Your task to perform on an android device: View the shopping cart on amazon. Search for "logitech g903" on amazon, select the first entry, add it to the cart, then select checkout. Image 0: 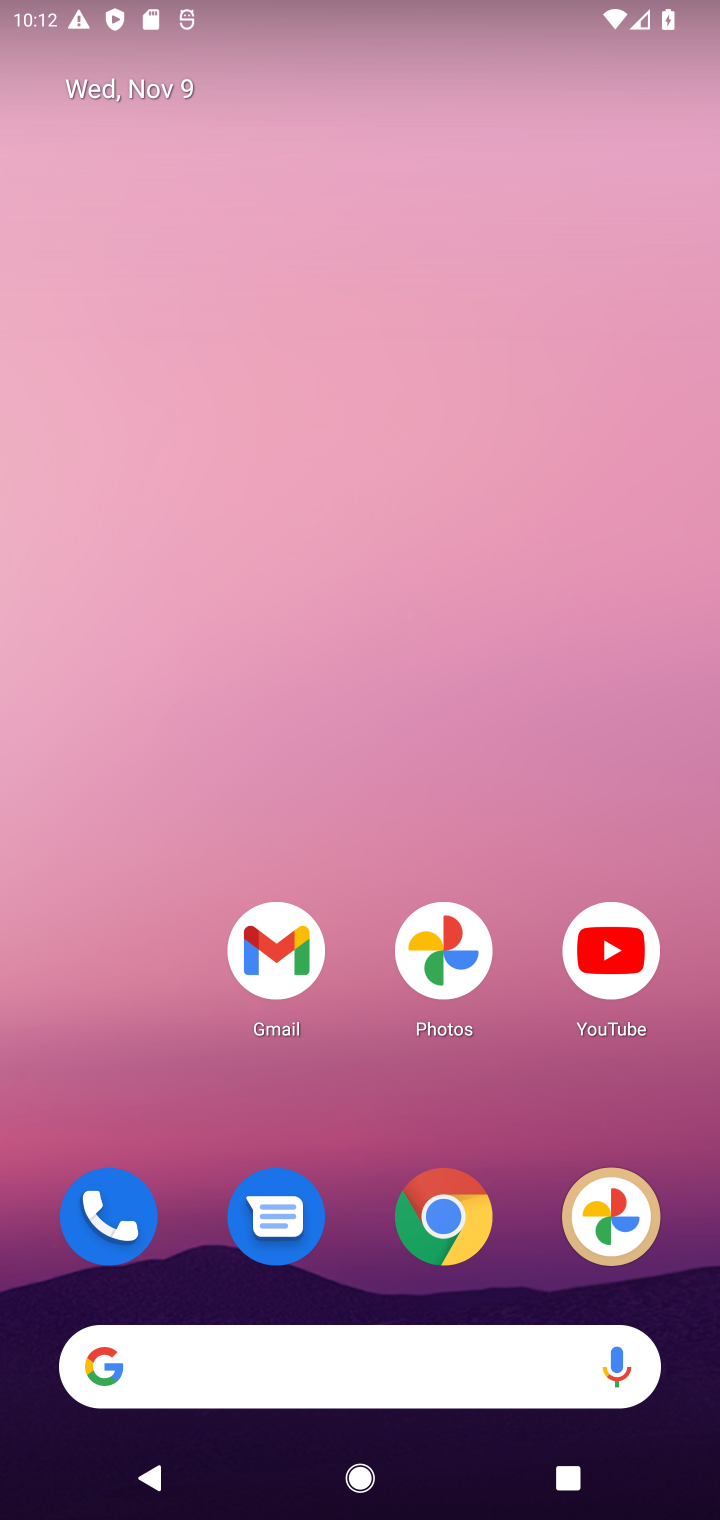
Step 0: drag from (359, 658) to (326, 15)
Your task to perform on an android device: View the shopping cart on amazon. Search for "logitech g903" on amazon, select the first entry, add it to the cart, then select checkout. Image 1: 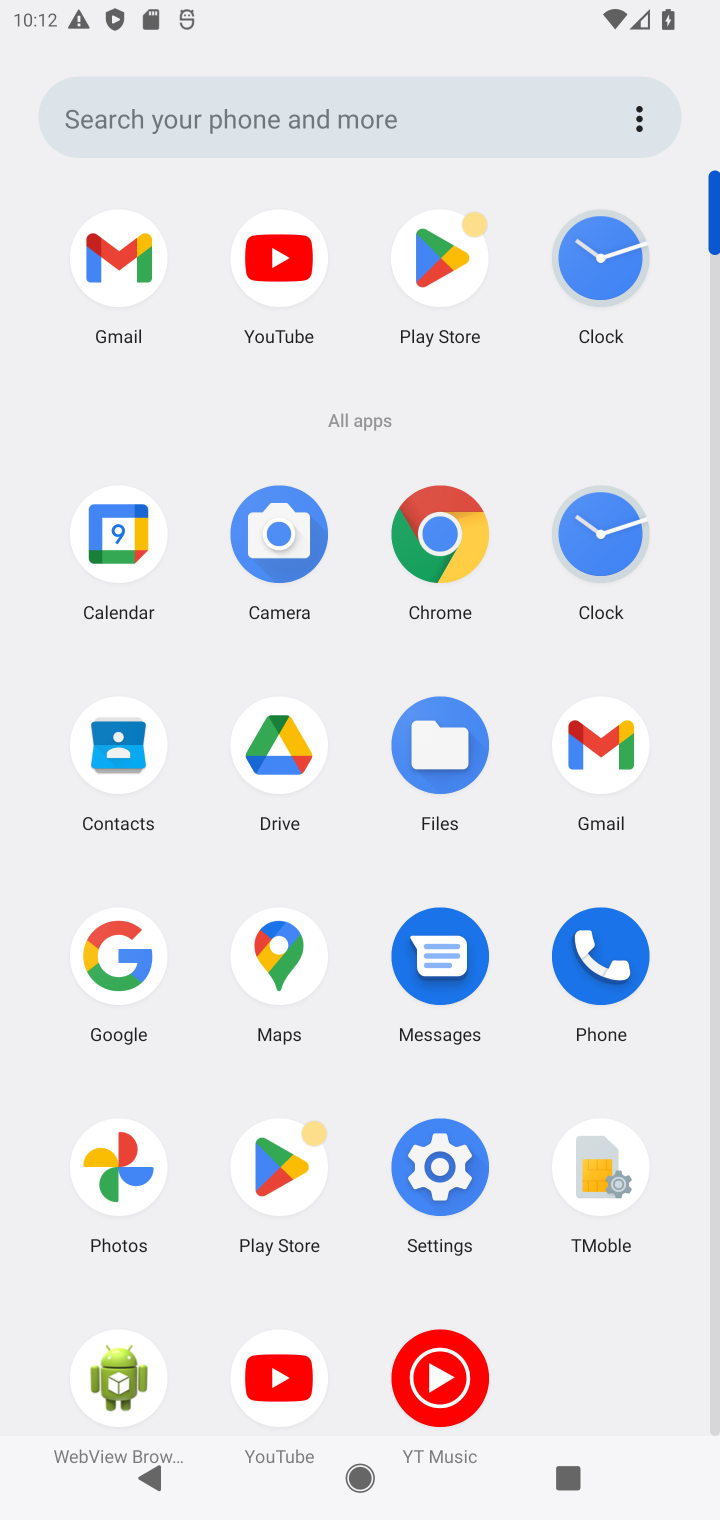
Step 1: click (432, 534)
Your task to perform on an android device: View the shopping cart on amazon. Search for "logitech g903" on amazon, select the first entry, add it to the cart, then select checkout. Image 2: 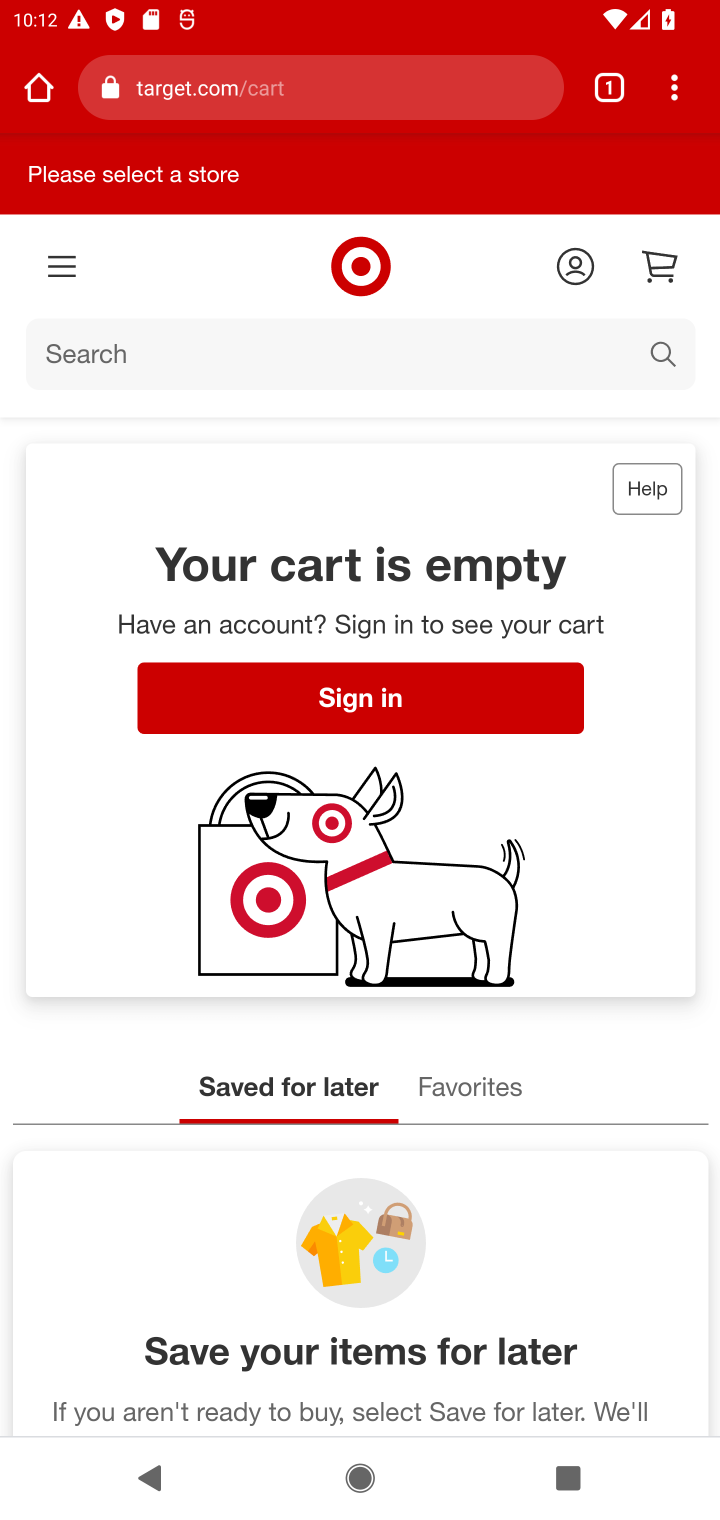
Step 2: click (337, 116)
Your task to perform on an android device: View the shopping cart on amazon. Search for "logitech g903" on amazon, select the first entry, add it to the cart, then select checkout. Image 3: 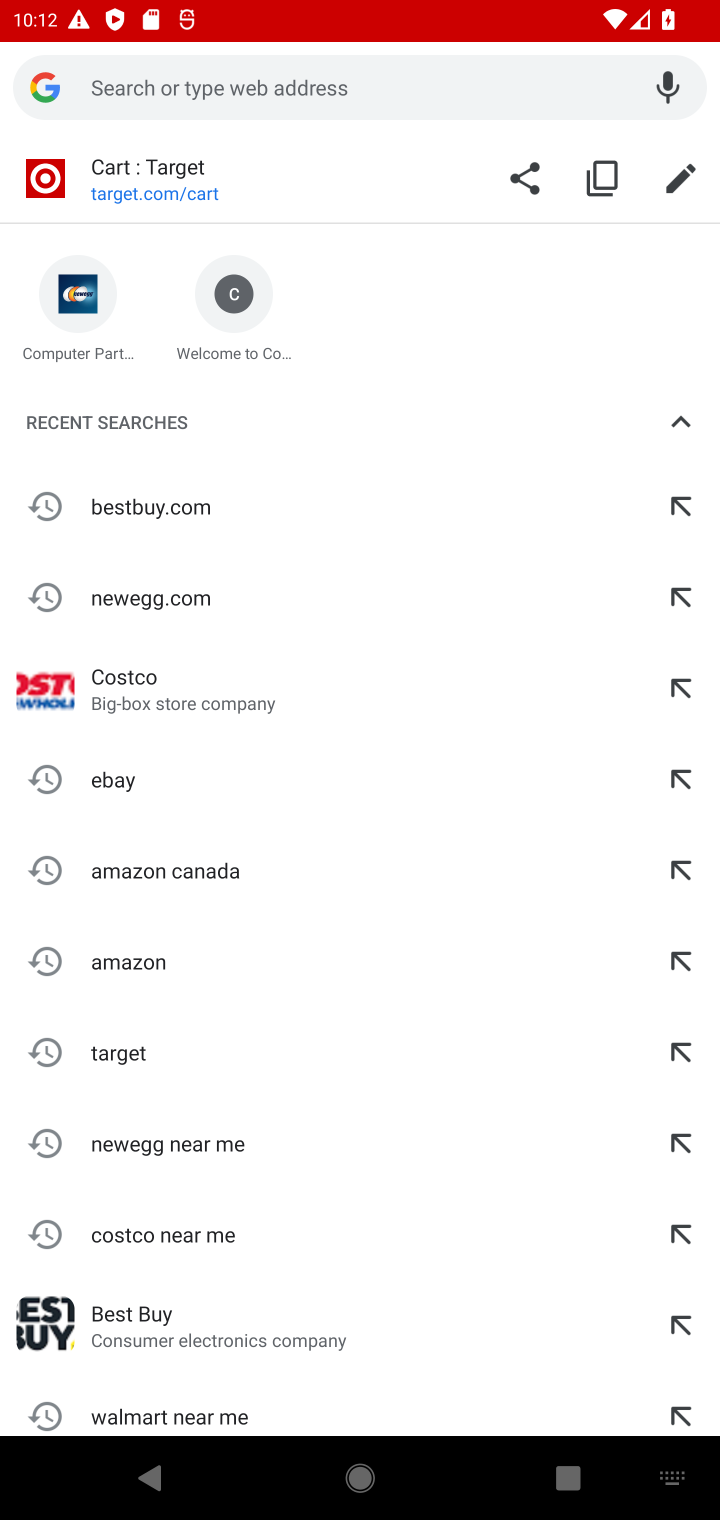
Step 3: type "amazon.com"
Your task to perform on an android device: View the shopping cart on amazon. Search for "logitech g903" on amazon, select the first entry, add it to the cart, then select checkout. Image 4: 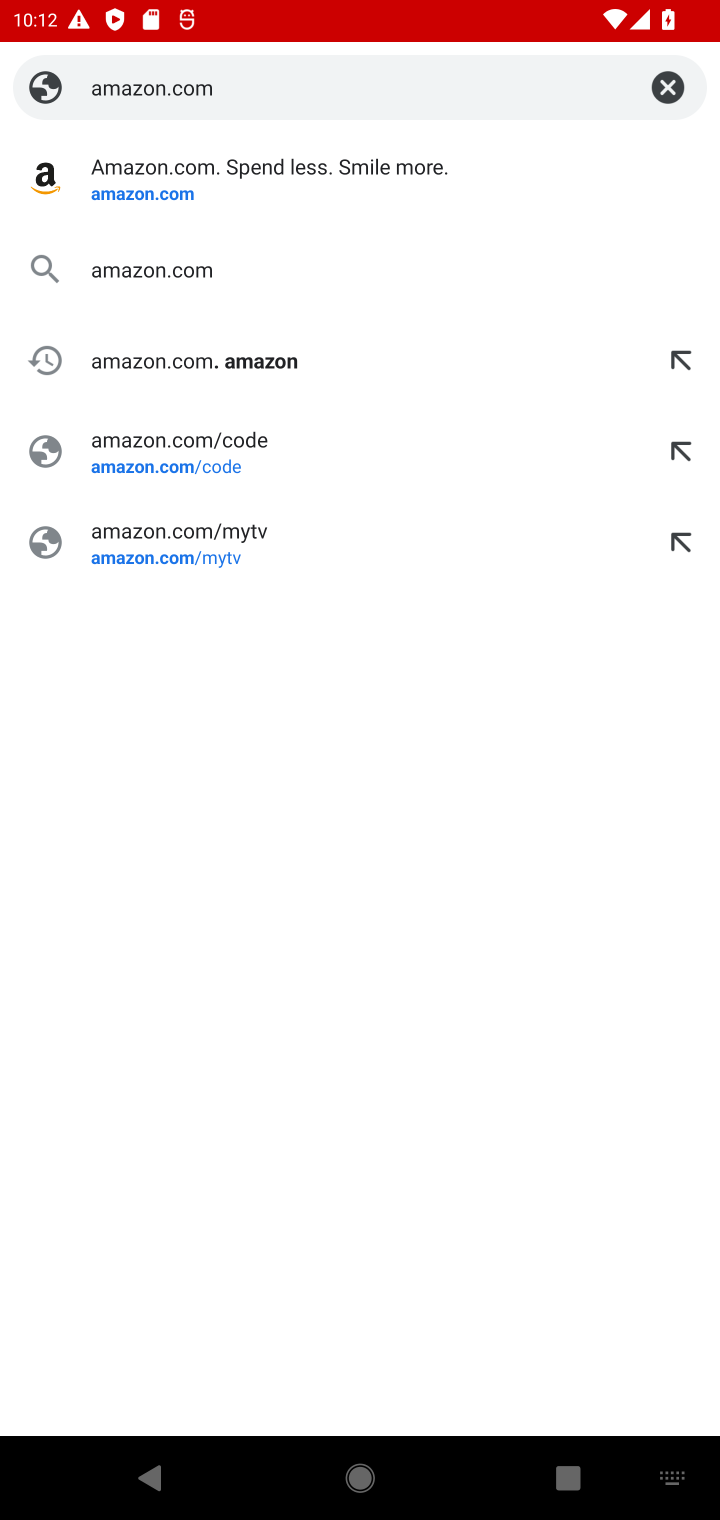
Step 4: press enter
Your task to perform on an android device: View the shopping cart on amazon. Search for "logitech g903" on amazon, select the first entry, add it to the cart, then select checkout. Image 5: 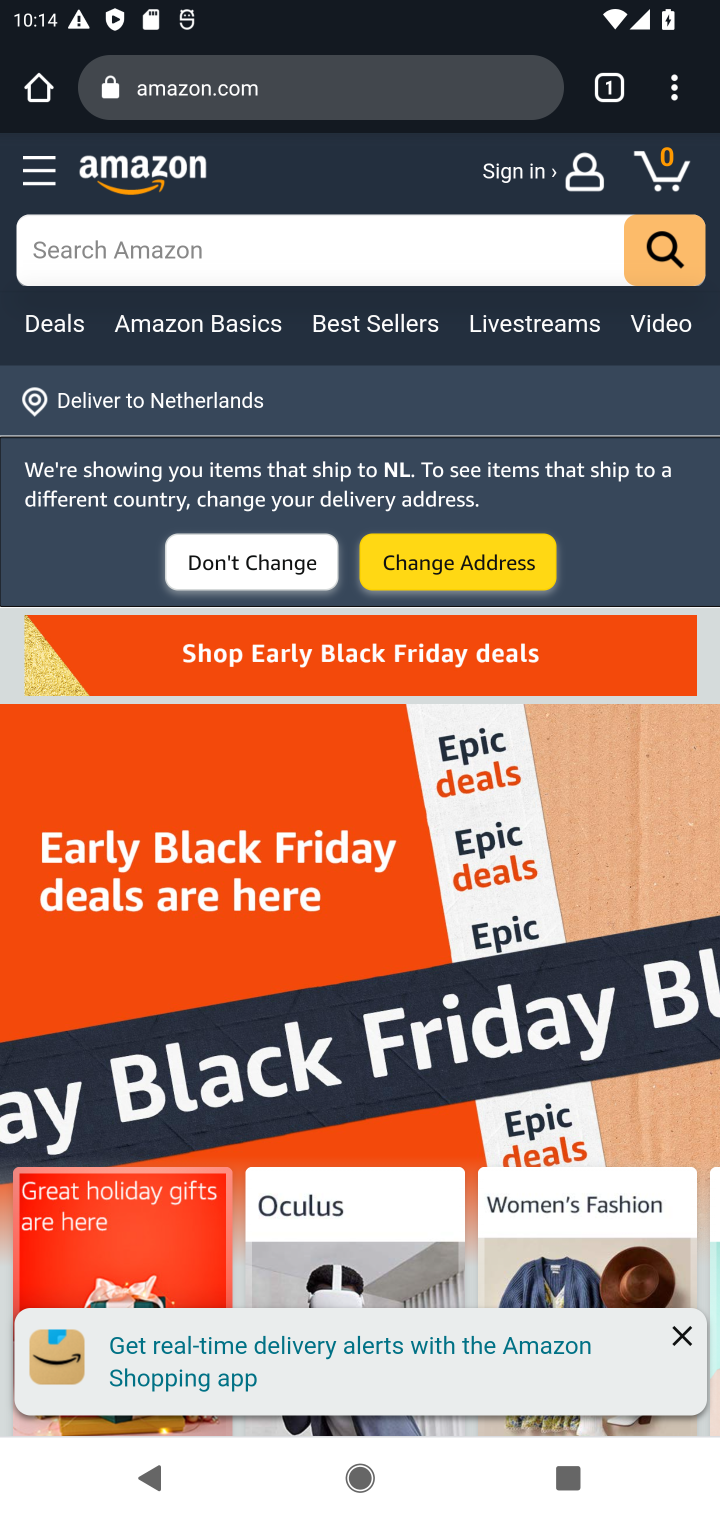
Step 5: click (445, 239)
Your task to perform on an android device: View the shopping cart on amazon. Search for "logitech g903" on amazon, select the first entry, add it to the cart, then select checkout. Image 6: 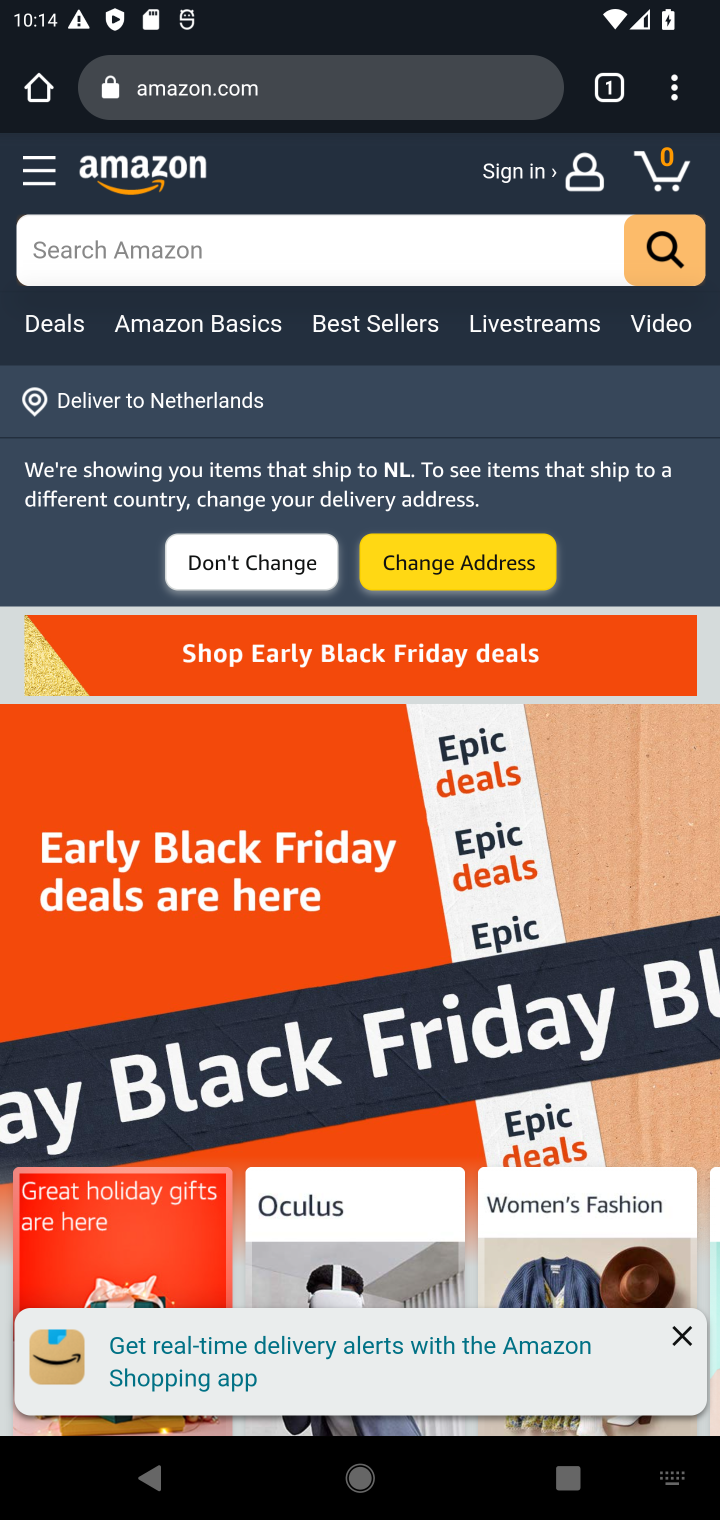
Step 6: click (678, 179)
Your task to perform on an android device: View the shopping cart on amazon. Search for "logitech g903" on amazon, select the first entry, add it to the cart, then select checkout. Image 7: 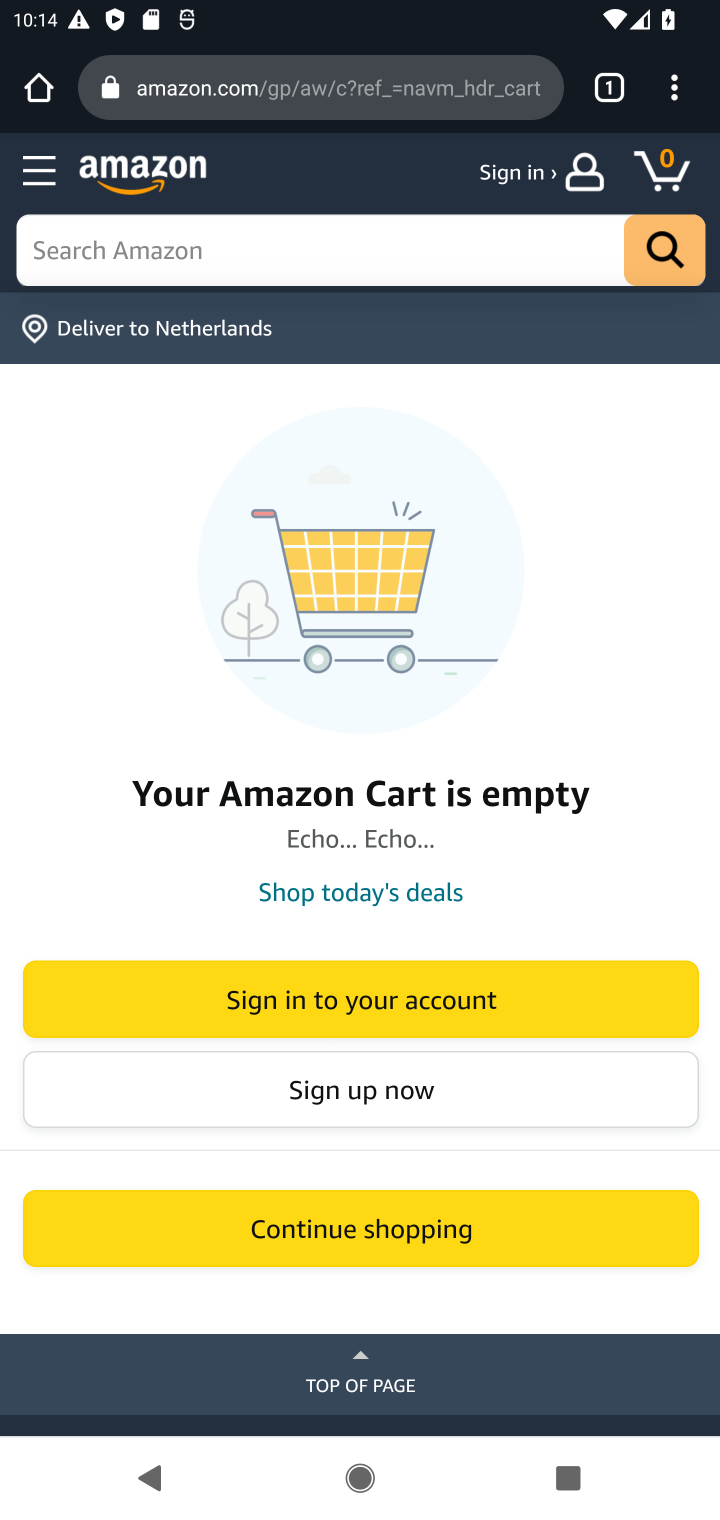
Step 7: click (317, 236)
Your task to perform on an android device: View the shopping cart on amazon. Search for "logitech g903" on amazon, select the first entry, add it to the cart, then select checkout. Image 8: 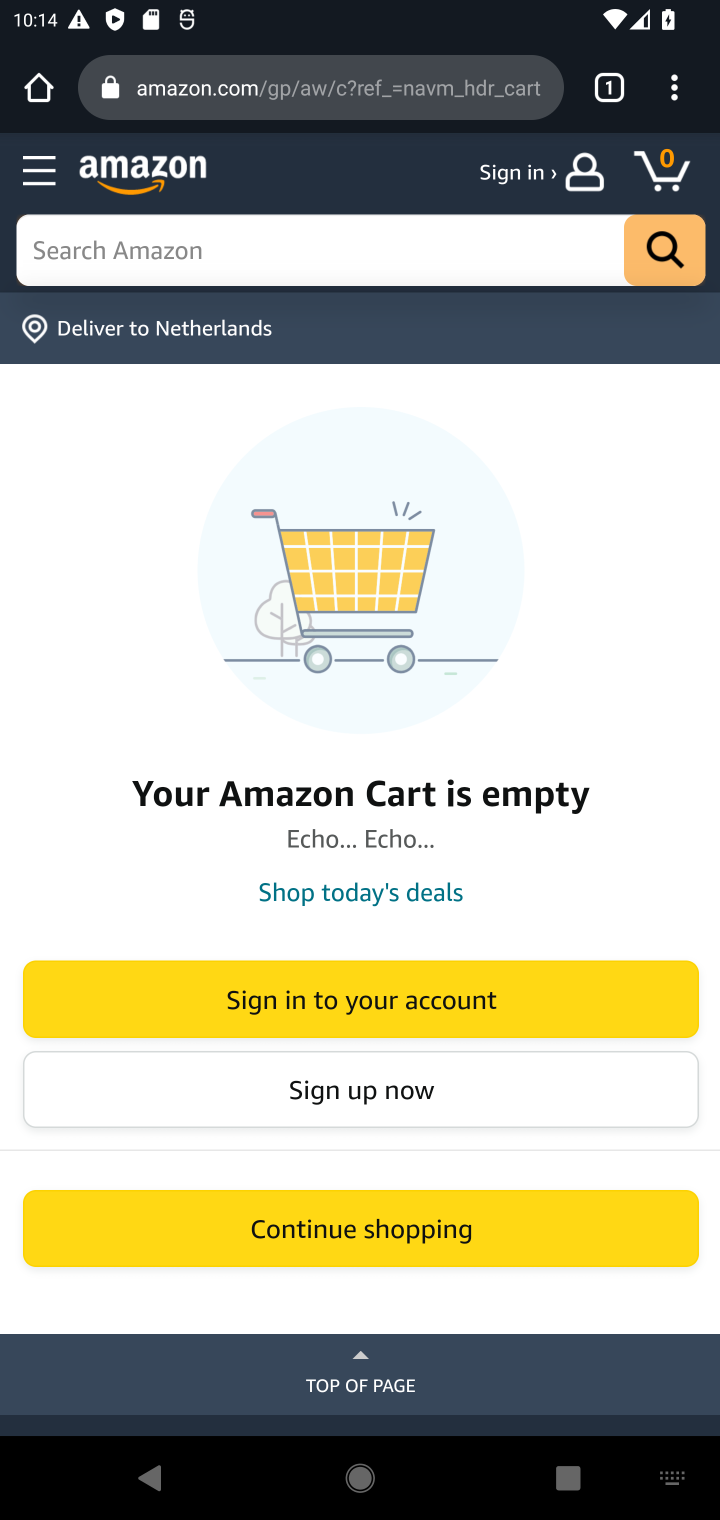
Step 8: type "logitech g903"
Your task to perform on an android device: View the shopping cart on amazon. Search for "logitech g903" on amazon, select the first entry, add it to the cart, then select checkout. Image 9: 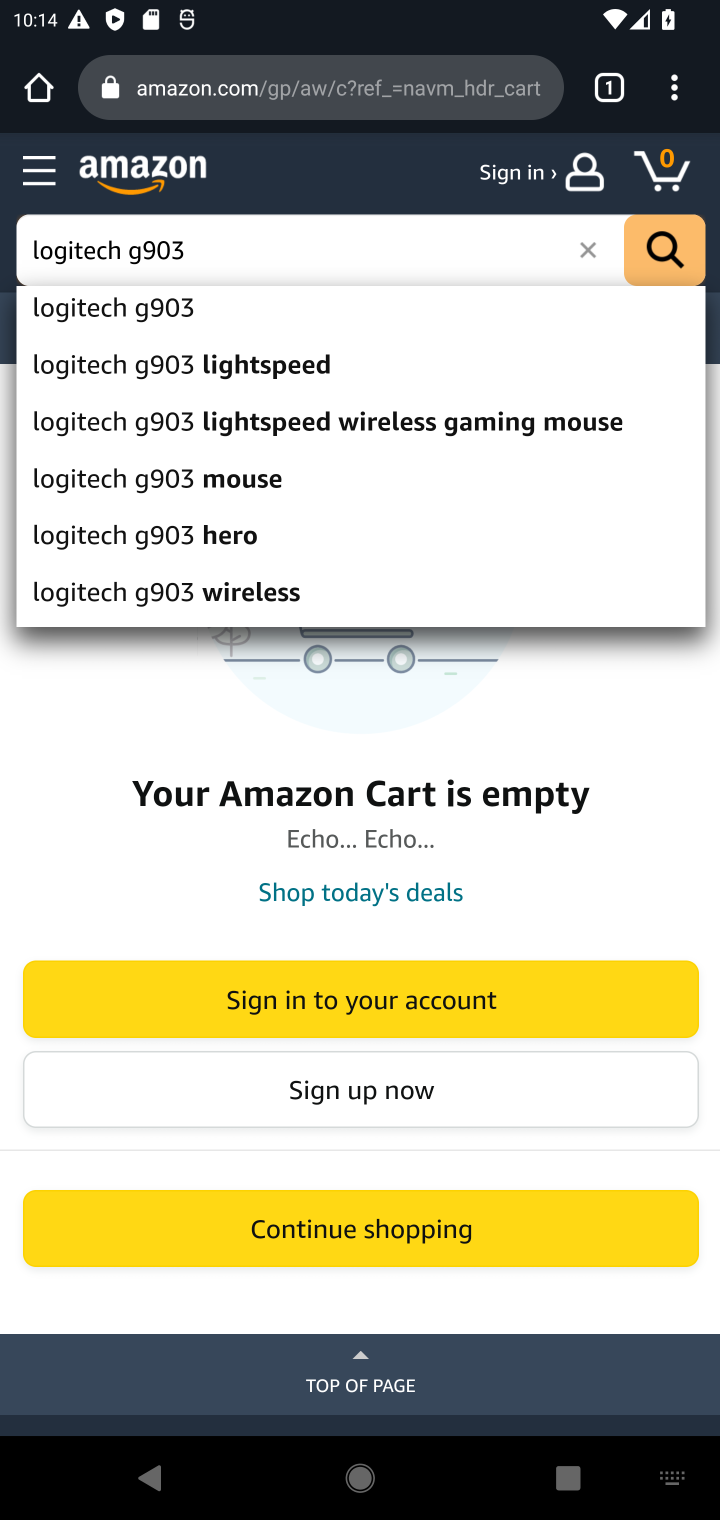
Step 9: press enter
Your task to perform on an android device: View the shopping cart on amazon. Search for "logitech g903" on amazon, select the first entry, add it to the cart, then select checkout. Image 10: 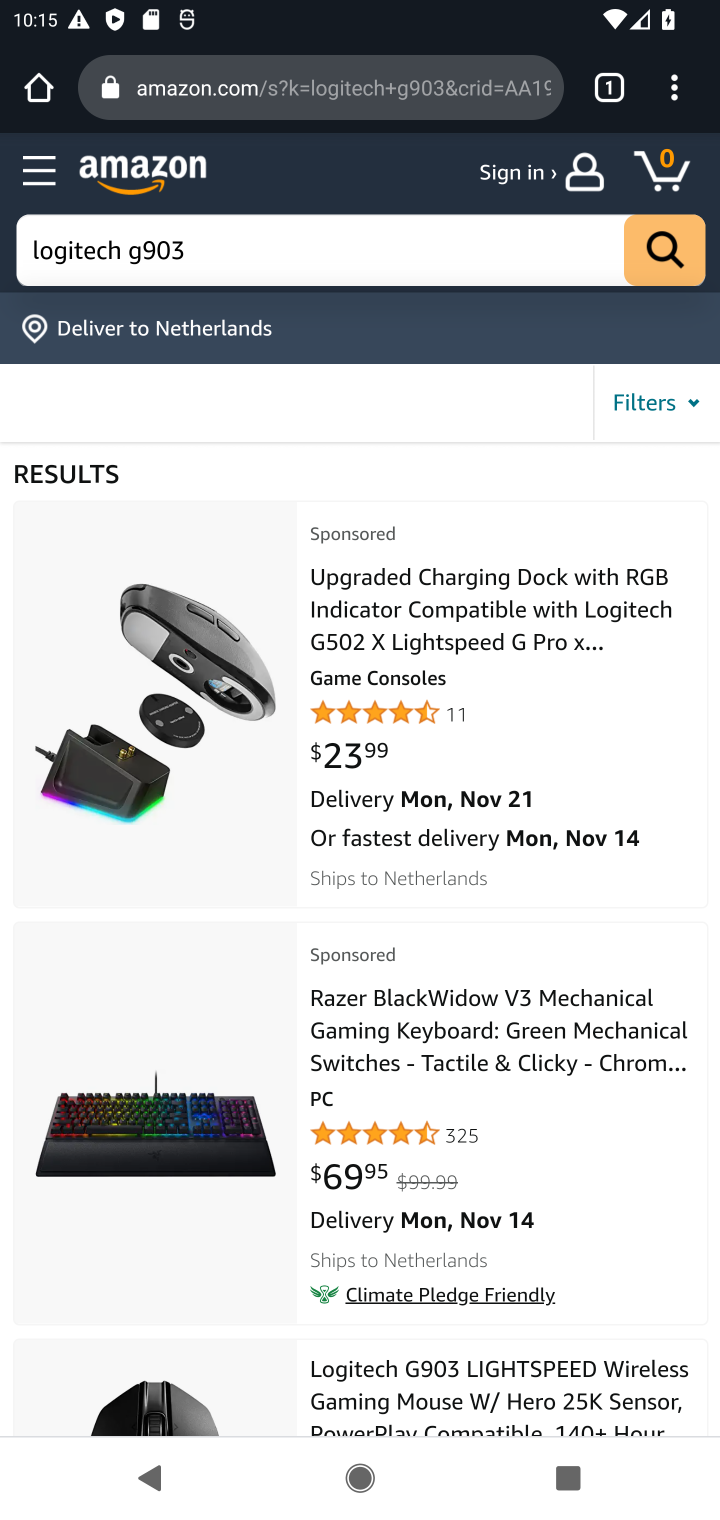
Step 10: drag from (511, 1311) to (522, 660)
Your task to perform on an android device: View the shopping cart on amazon. Search for "logitech g903" on amazon, select the first entry, add it to the cart, then select checkout. Image 11: 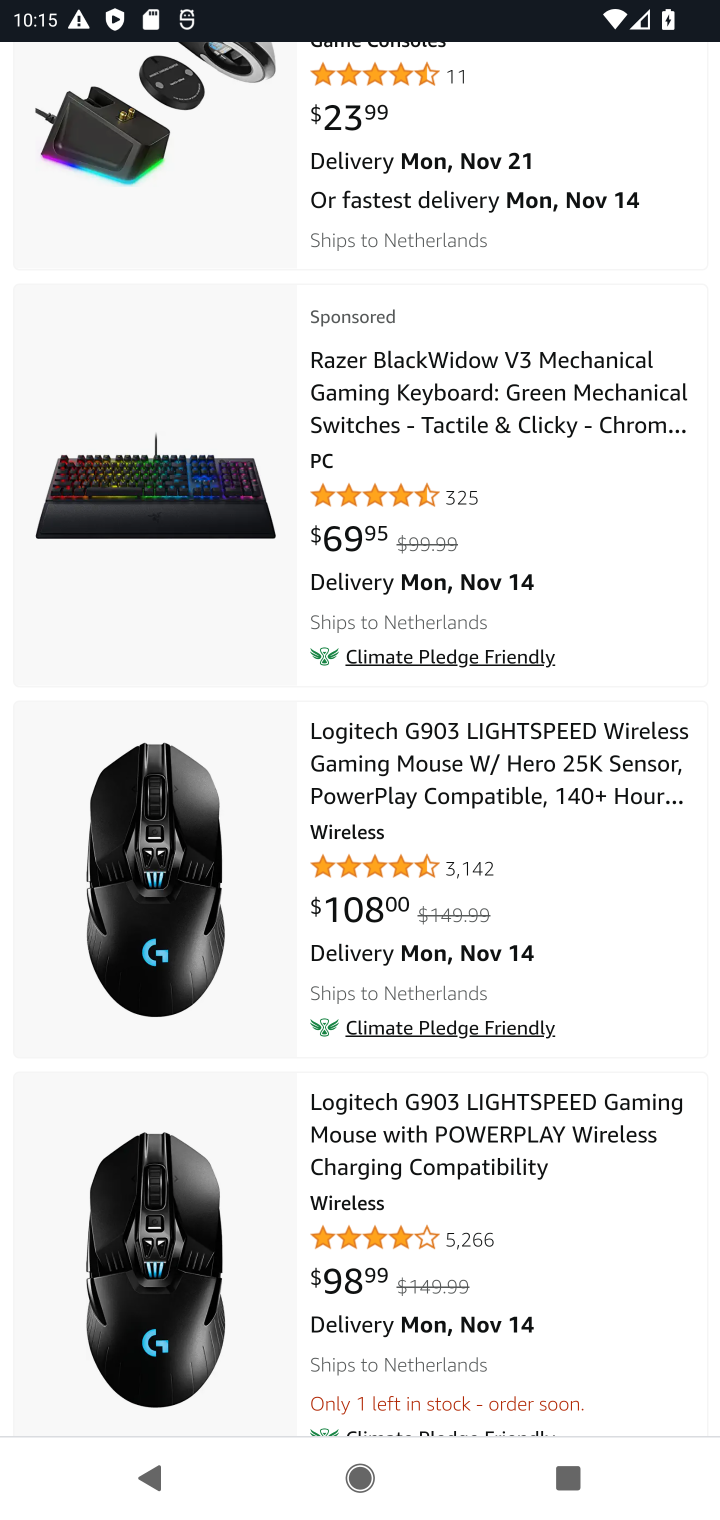
Step 11: click (451, 794)
Your task to perform on an android device: View the shopping cart on amazon. Search for "logitech g903" on amazon, select the first entry, add it to the cart, then select checkout. Image 12: 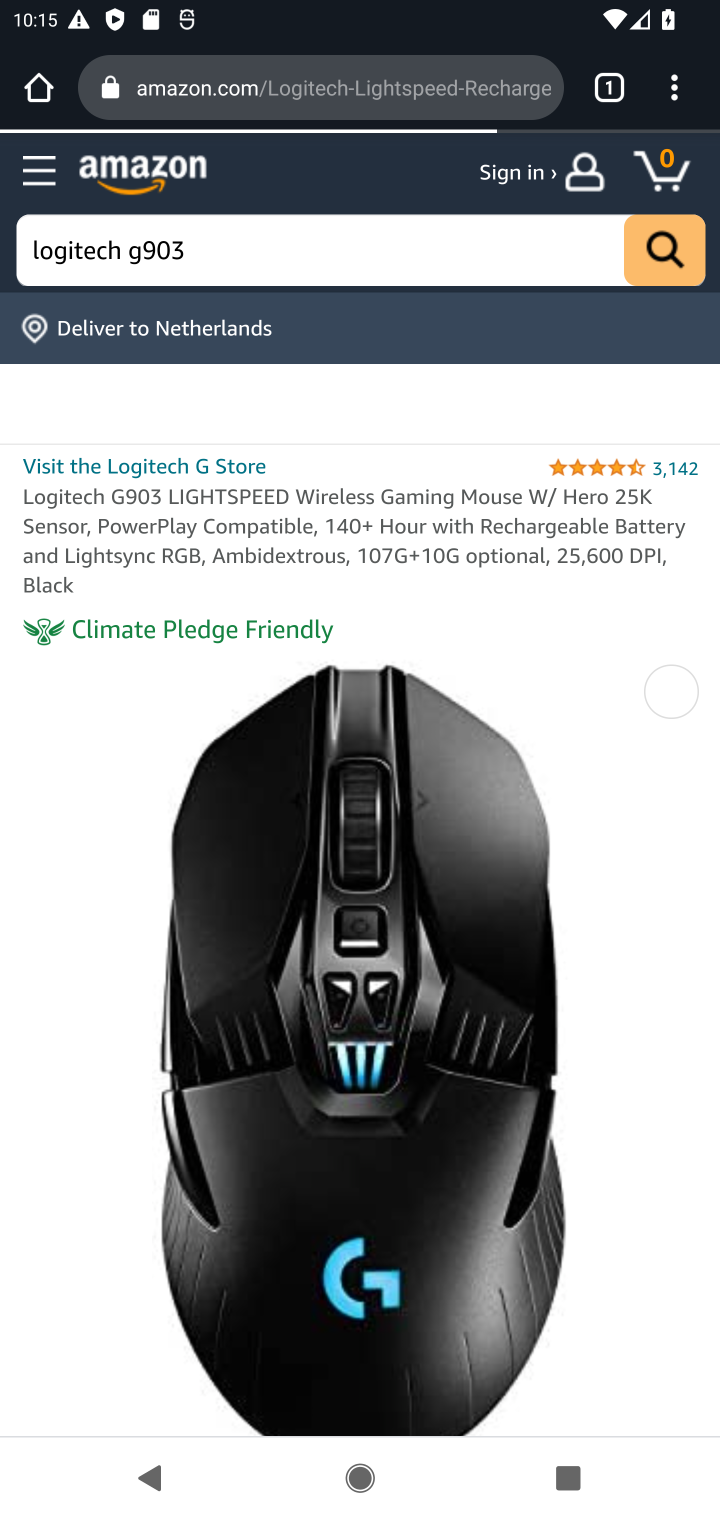
Step 12: drag from (373, 975) to (397, 194)
Your task to perform on an android device: View the shopping cart on amazon. Search for "logitech g903" on amazon, select the first entry, add it to the cart, then select checkout. Image 13: 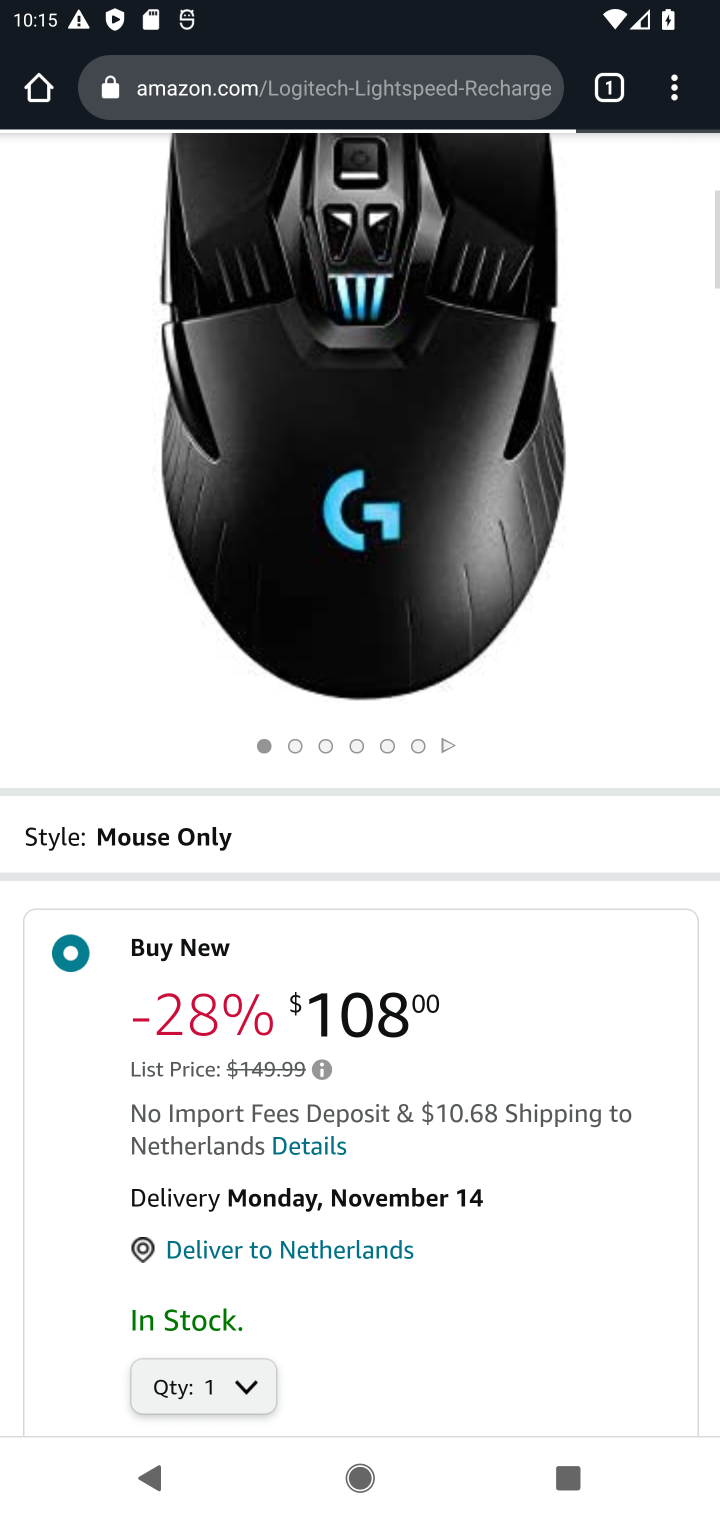
Step 13: drag from (395, 1193) to (455, 325)
Your task to perform on an android device: View the shopping cart on amazon. Search for "logitech g903" on amazon, select the first entry, add it to the cart, then select checkout. Image 14: 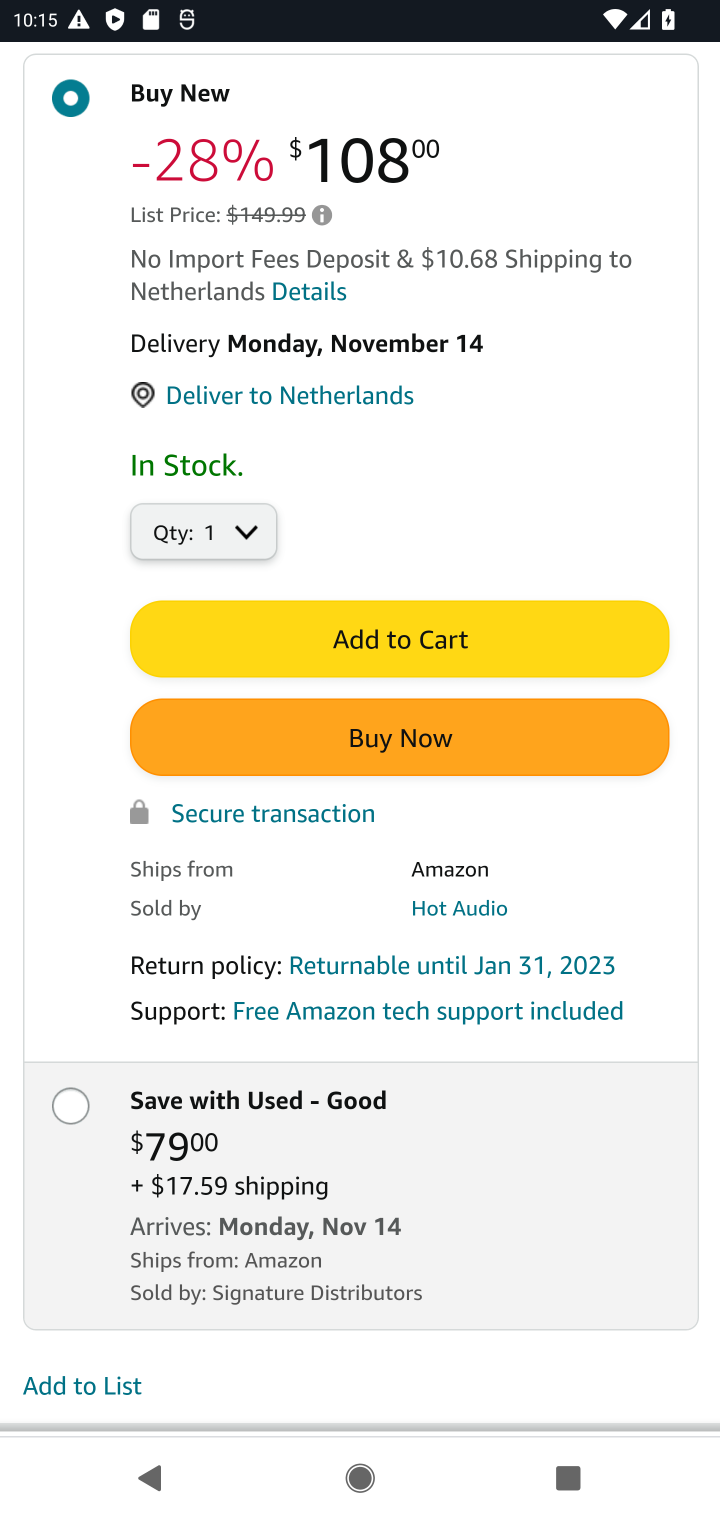
Step 14: click (582, 625)
Your task to perform on an android device: View the shopping cart on amazon. Search for "logitech g903" on amazon, select the first entry, add it to the cart, then select checkout. Image 15: 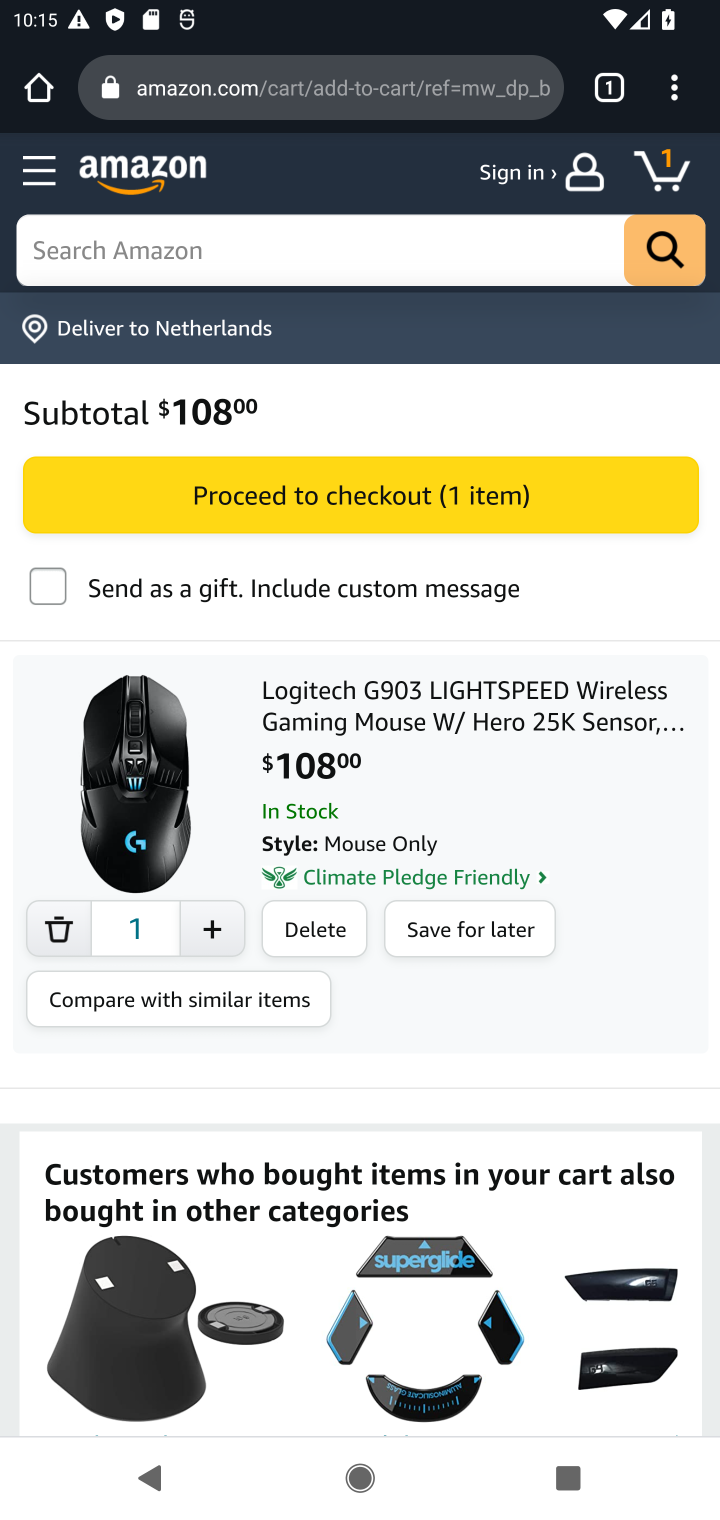
Step 15: click (508, 502)
Your task to perform on an android device: View the shopping cart on amazon. Search for "logitech g903" on amazon, select the first entry, add it to the cart, then select checkout. Image 16: 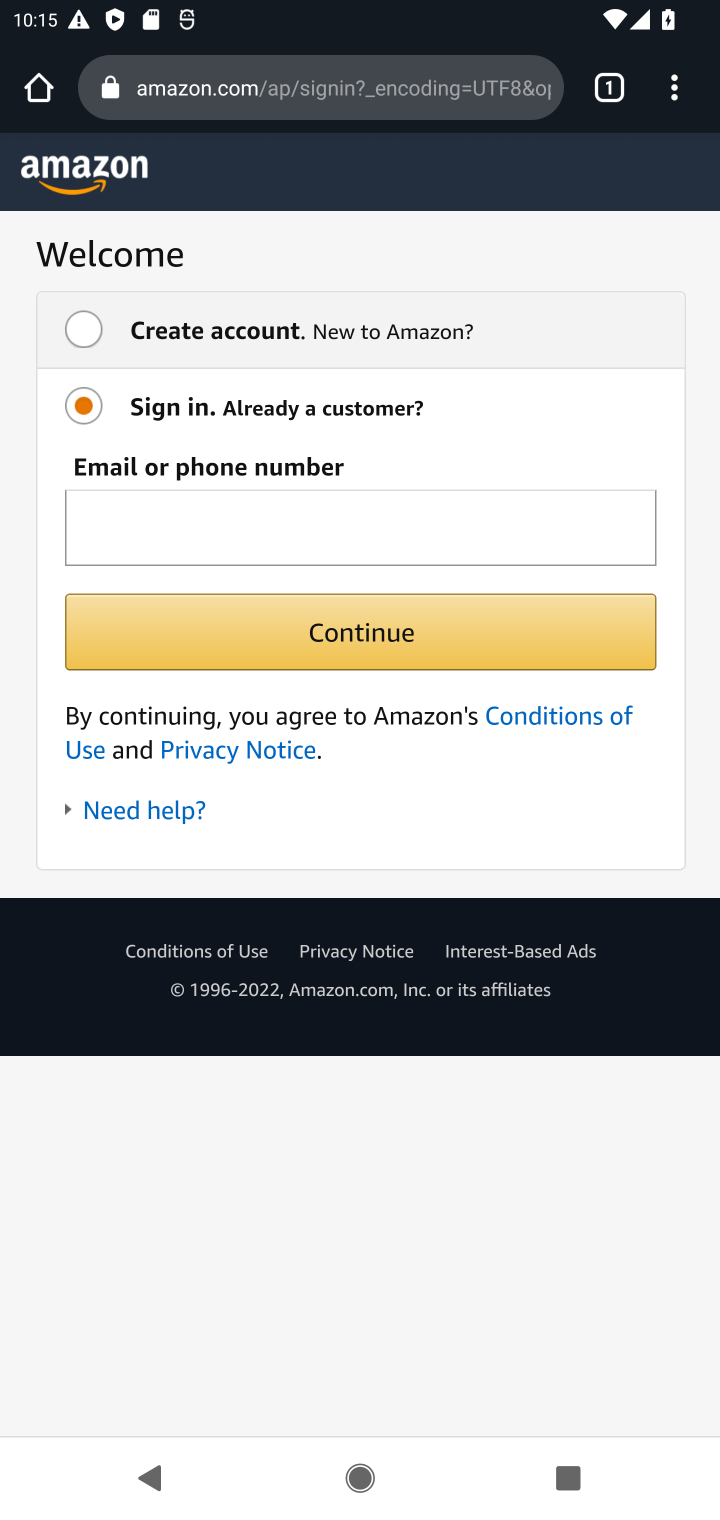
Step 16: task complete